Your task to perform on an android device: Search for Mexican restaurants on Maps Image 0: 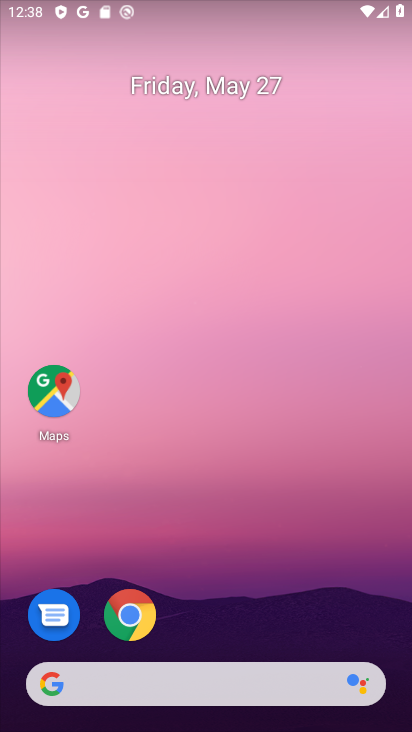
Step 0: click (52, 388)
Your task to perform on an android device: Search for Mexican restaurants on Maps Image 1: 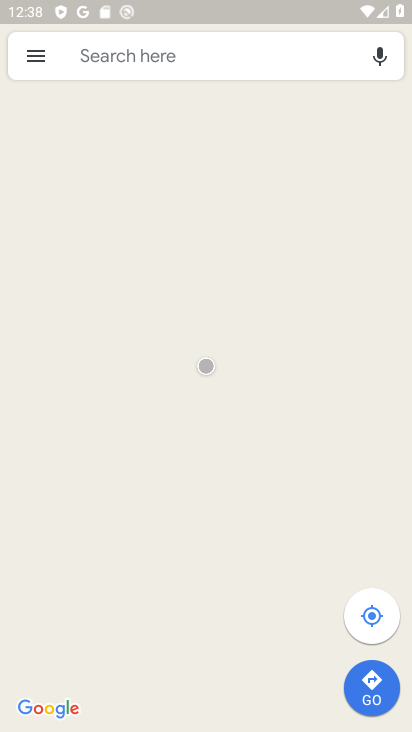
Step 1: click (144, 56)
Your task to perform on an android device: Search for Mexican restaurants on Maps Image 2: 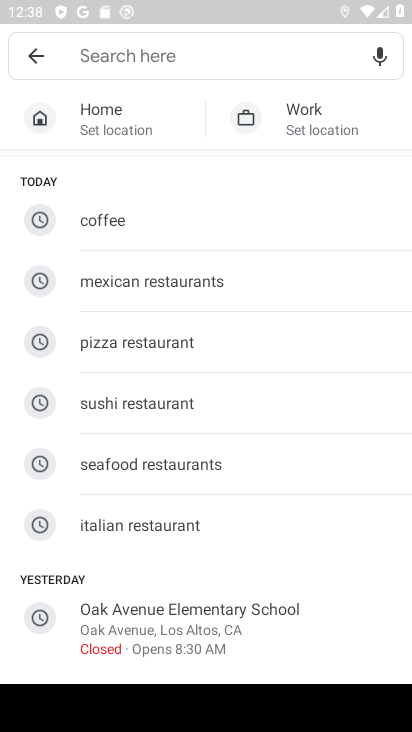
Step 2: type "Mexican restaurants"
Your task to perform on an android device: Search for Mexican restaurants on Maps Image 3: 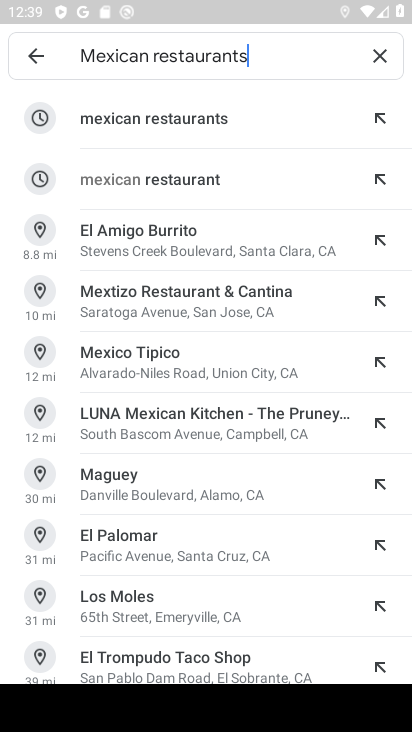
Step 3: click (188, 112)
Your task to perform on an android device: Search for Mexican restaurants on Maps Image 4: 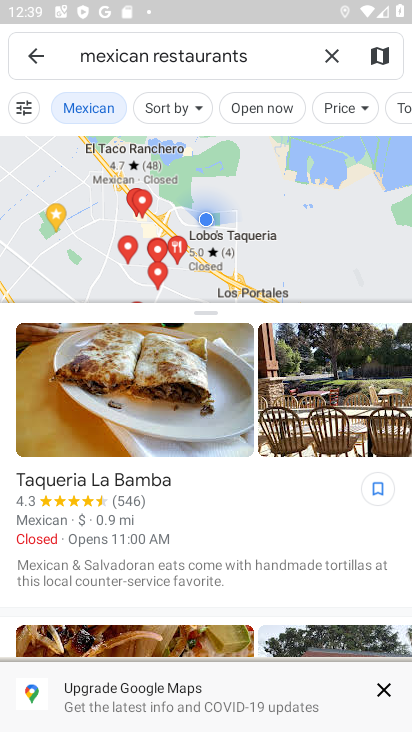
Step 4: task complete